Your task to perform on an android device: see sites visited before in the chrome app Image 0: 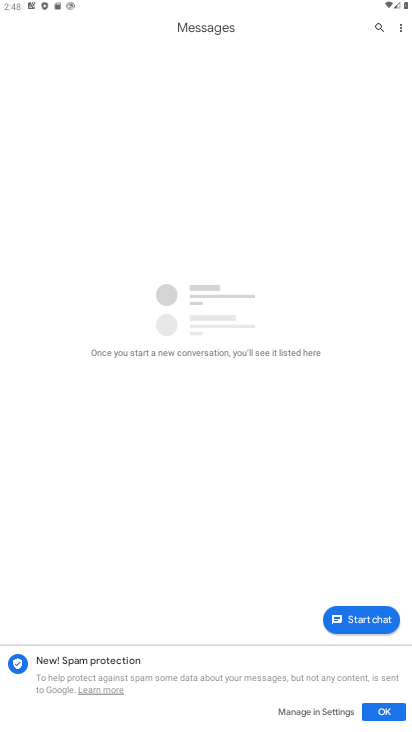
Step 0: press home button
Your task to perform on an android device: see sites visited before in the chrome app Image 1: 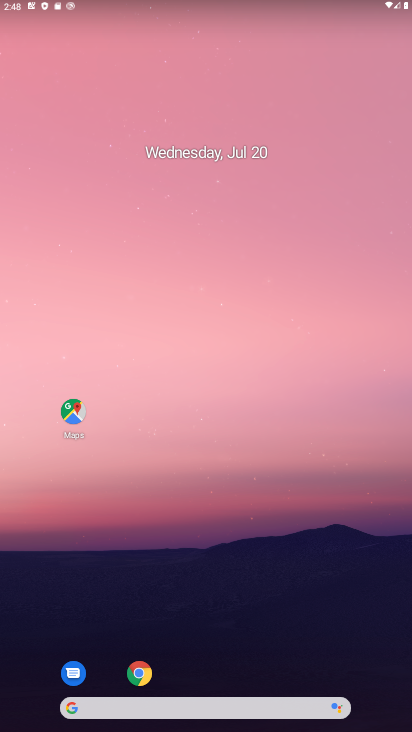
Step 1: click (137, 673)
Your task to perform on an android device: see sites visited before in the chrome app Image 2: 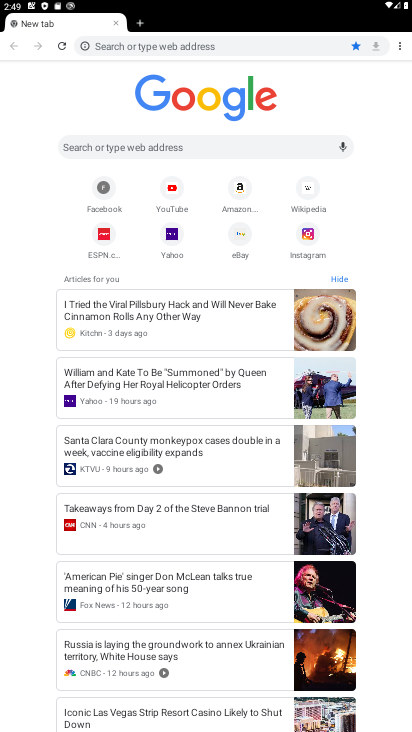
Step 2: click (395, 41)
Your task to perform on an android device: see sites visited before in the chrome app Image 3: 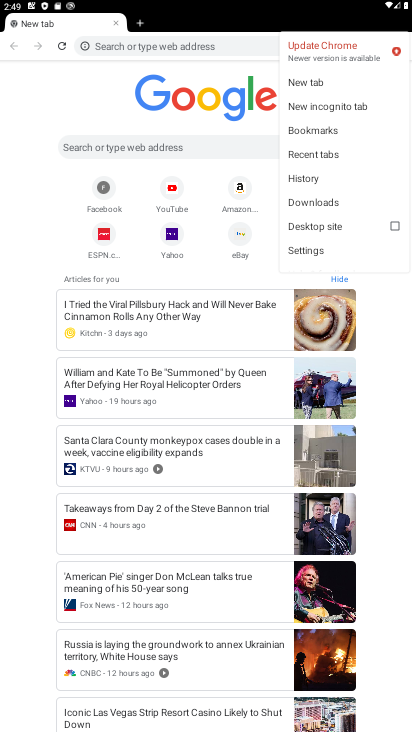
Step 3: click (320, 177)
Your task to perform on an android device: see sites visited before in the chrome app Image 4: 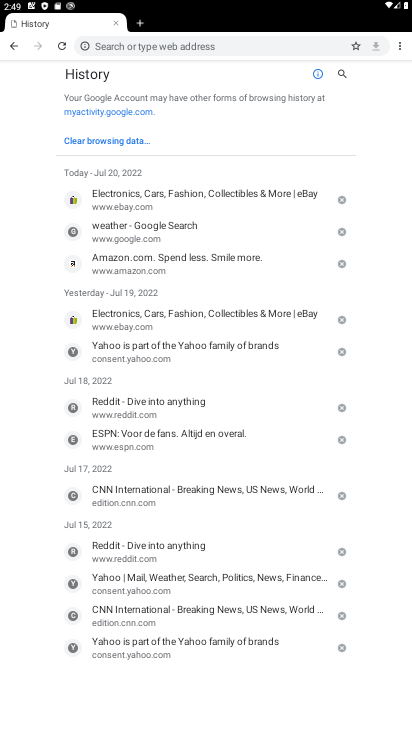
Step 4: task complete